Your task to perform on an android device: Open Youtube and go to "Your channel" Image 0: 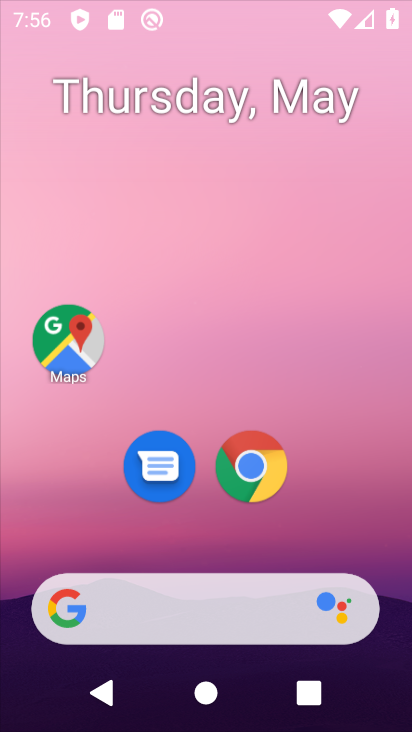
Step 0: click (224, 19)
Your task to perform on an android device: Open Youtube and go to "Your channel" Image 1: 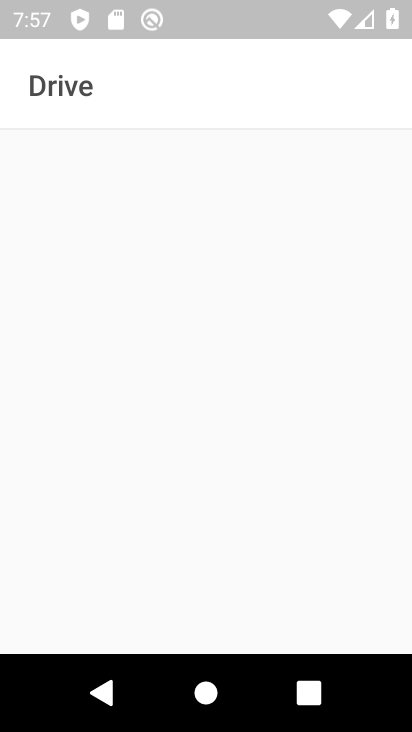
Step 1: press home button
Your task to perform on an android device: Open Youtube and go to "Your channel" Image 2: 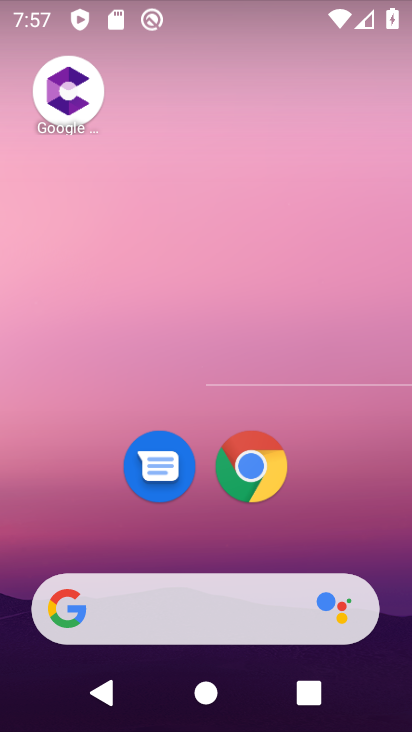
Step 2: drag from (219, 468) to (178, 6)
Your task to perform on an android device: Open Youtube and go to "Your channel" Image 3: 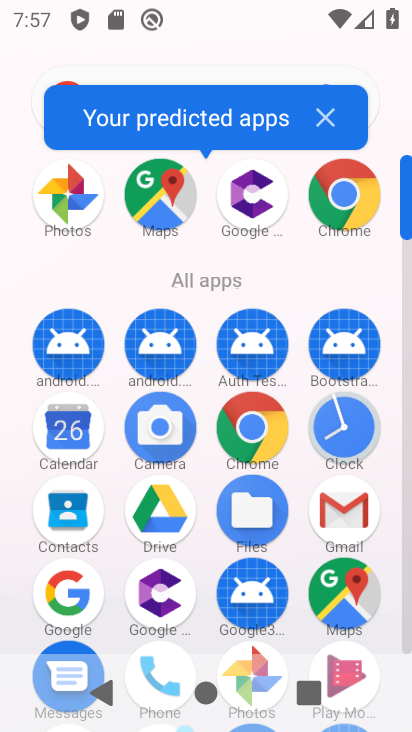
Step 3: drag from (204, 578) to (190, 10)
Your task to perform on an android device: Open Youtube and go to "Your channel" Image 4: 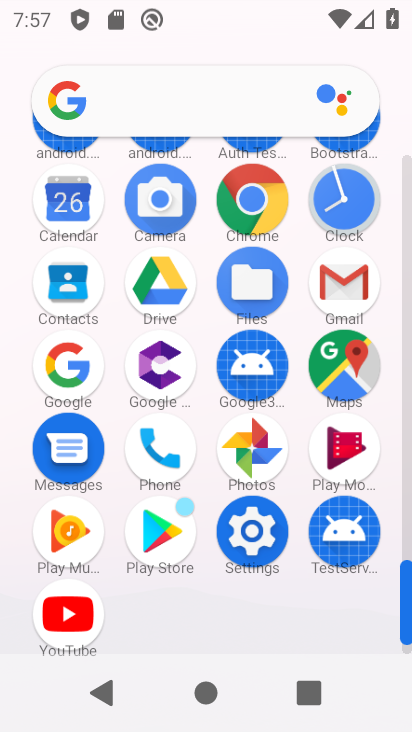
Step 4: click (57, 634)
Your task to perform on an android device: Open Youtube and go to "Your channel" Image 5: 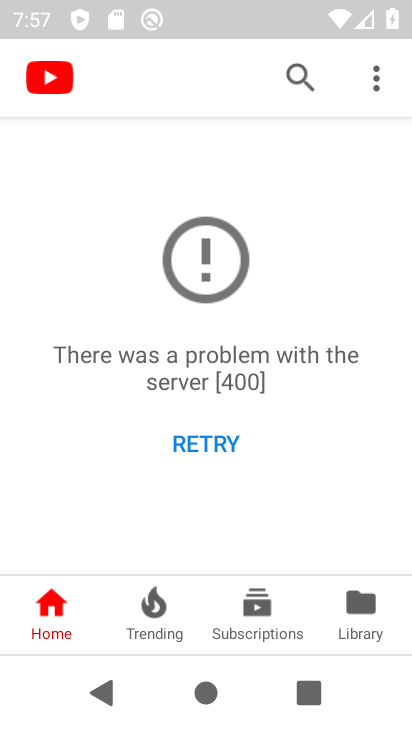
Step 5: click (379, 89)
Your task to perform on an android device: Open Youtube and go to "Your channel" Image 6: 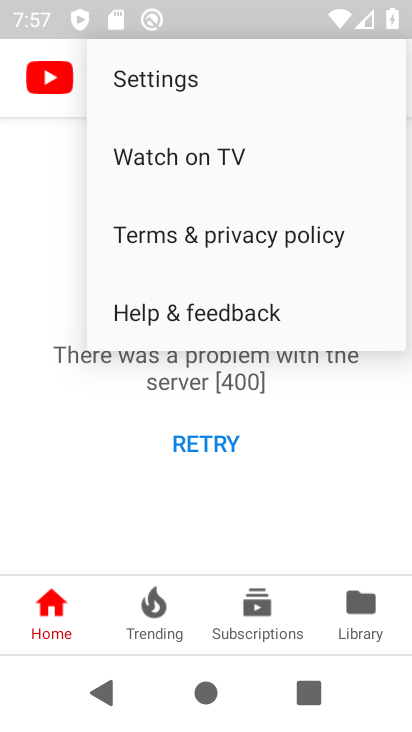
Step 6: click (186, 101)
Your task to perform on an android device: Open Youtube and go to "Your channel" Image 7: 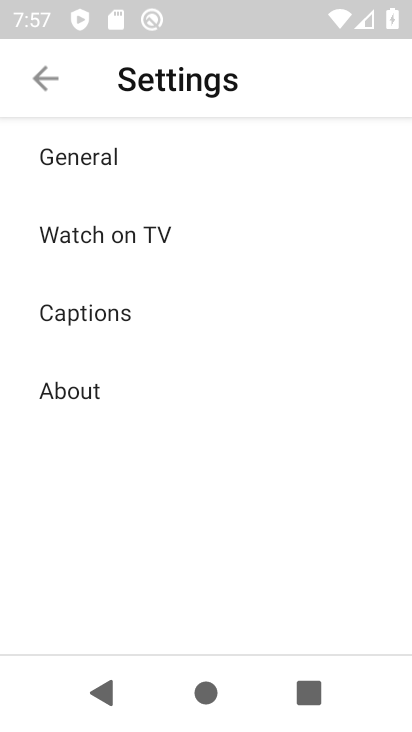
Step 7: task complete